Your task to perform on an android device: install app "Skype" Image 0: 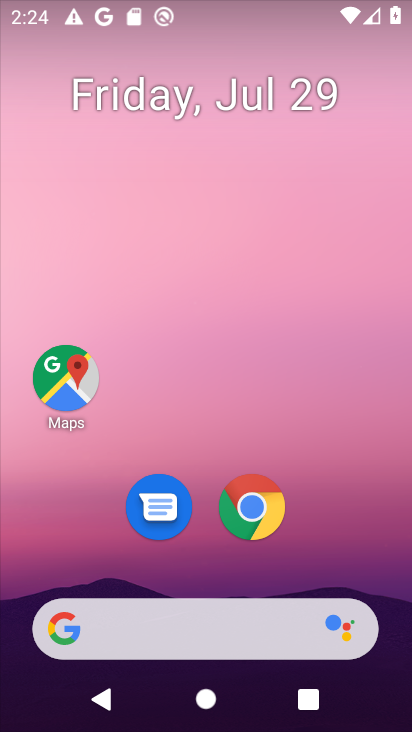
Step 0: click (197, 629)
Your task to perform on an android device: install app "Skype" Image 1: 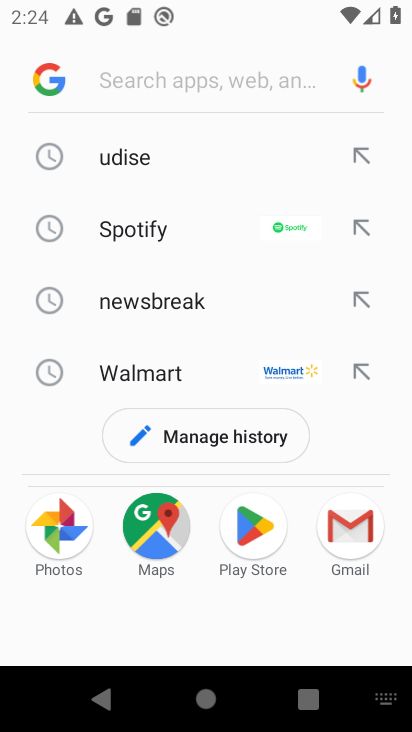
Step 1: type "skype"
Your task to perform on an android device: install app "Skype" Image 2: 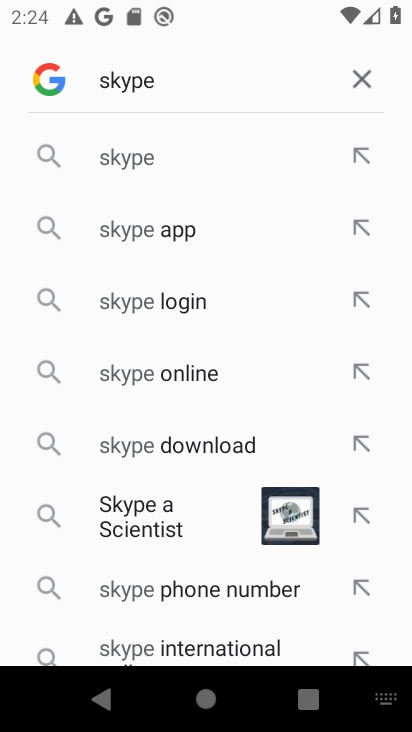
Step 2: click (161, 137)
Your task to perform on an android device: install app "Skype" Image 3: 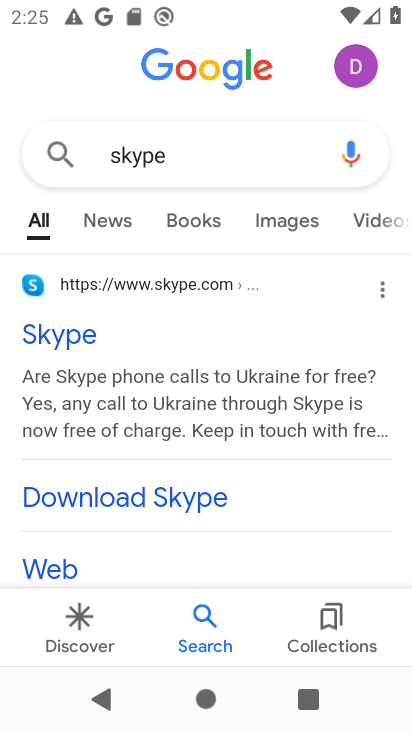
Step 3: drag from (97, 552) to (179, 155)
Your task to perform on an android device: install app "Skype" Image 4: 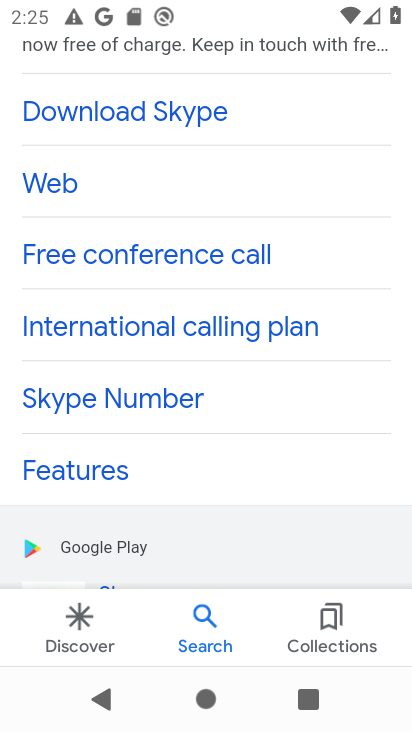
Step 4: drag from (161, 516) to (244, 252)
Your task to perform on an android device: install app "Skype" Image 5: 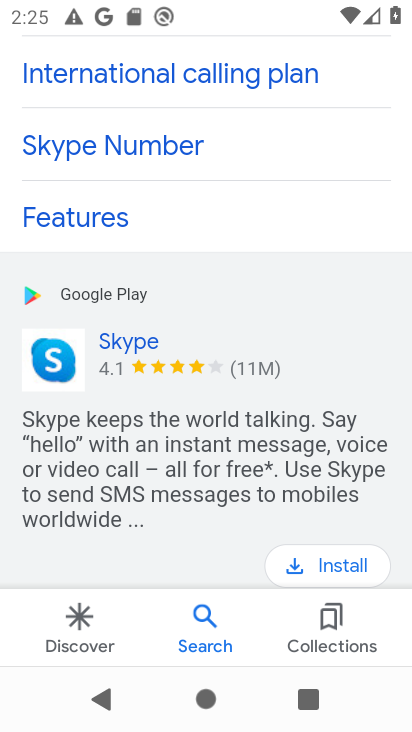
Step 5: click (320, 565)
Your task to perform on an android device: install app "Skype" Image 6: 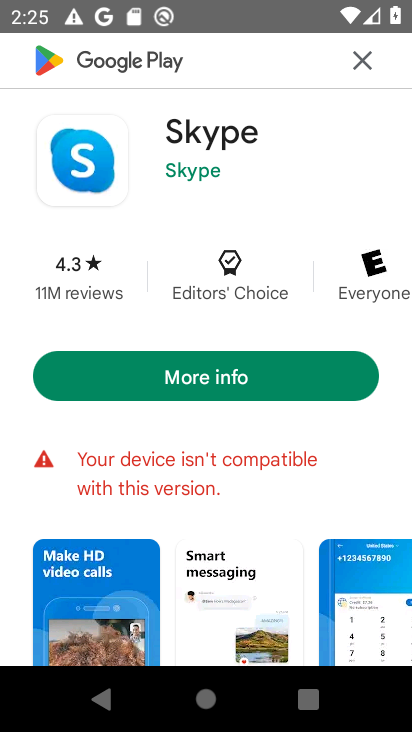
Step 6: task complete